Your task to perform on an android device: find which apps use the phone's location Image 0: 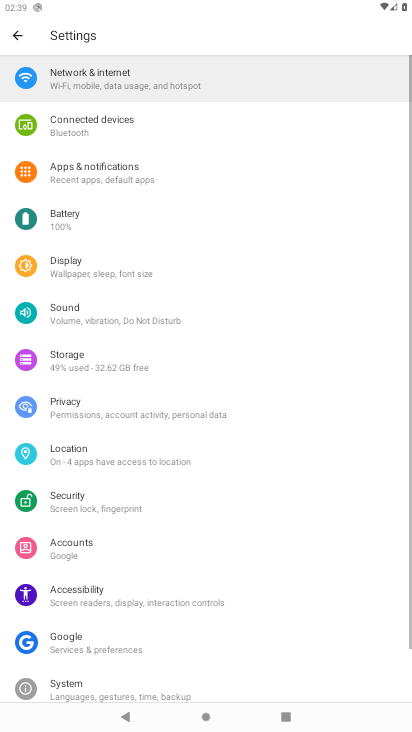
Step 0: click (116, 167)
Your task to perform on an android device: find which apps use the phone's location Image 1: 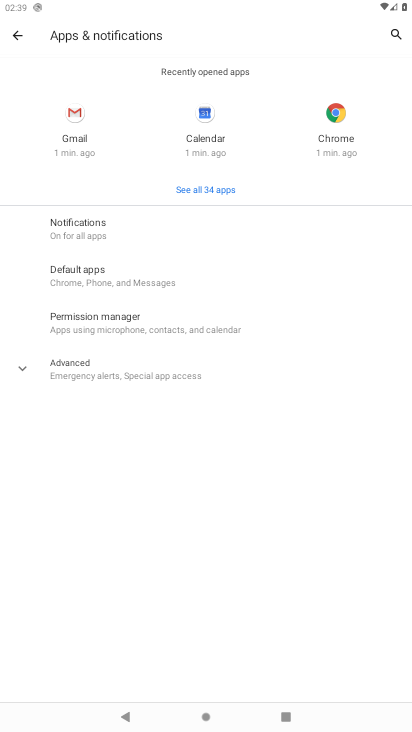
Step 1: click (35, 371)
Your task to perform on an android device: find which apps use the phone's location Image 2: 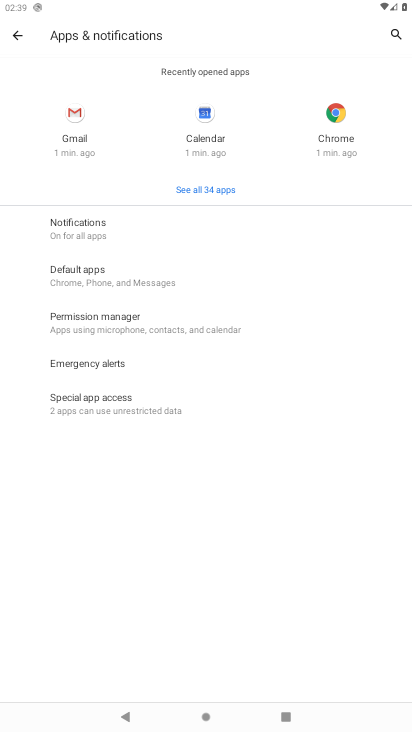
Step 2: click (93, 326)
Your task to perform on an android device: find which apps use the phone's location Image 3: 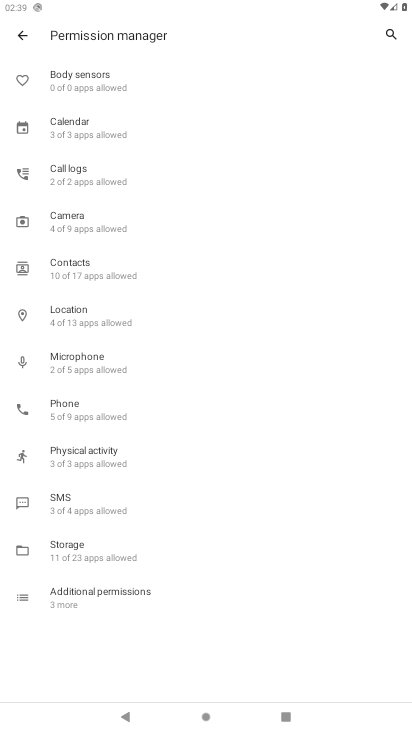
Step 3: task complete